Your task to perform on an android device: toggle notifications settings in the gmail app Image 0: 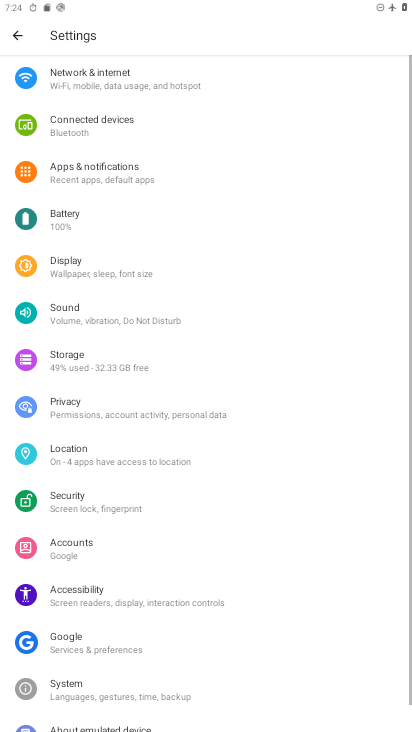
Step 0: press home button
Your task to perform on an android device: toggle notifications settings in the gmail app Image 1: 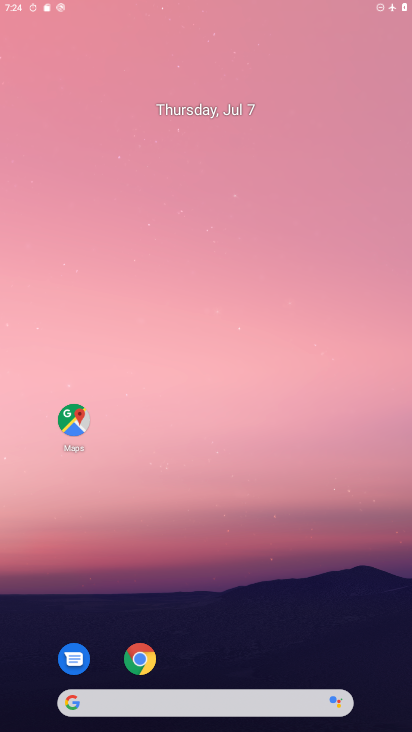
Step 1: drag from (365, 680) to (299, 293)
Your task to perform on an android device: toggle notifications settings in the gmail app Image 2: 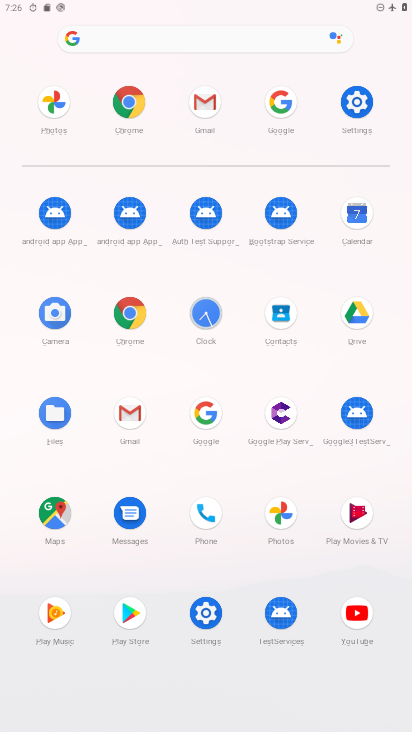
Step 2: click (128, 409)
Your task to perform on an android device: toggle notifications settings in the gmail app Image 3: 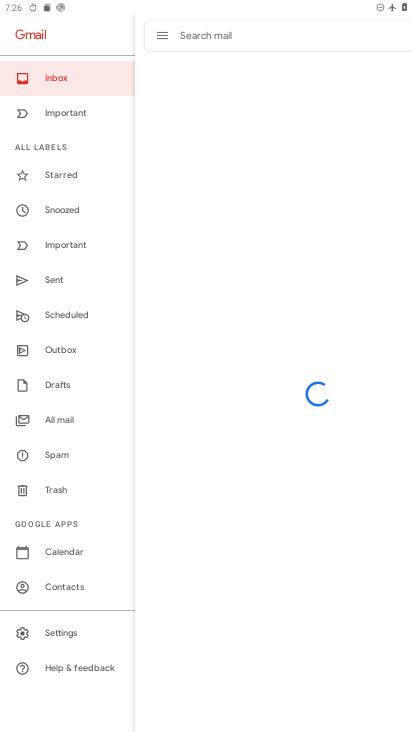
Step 3: click (56, 626)
Your task to perform on an android device: toggle notifications settings in the gmail app Image 4: 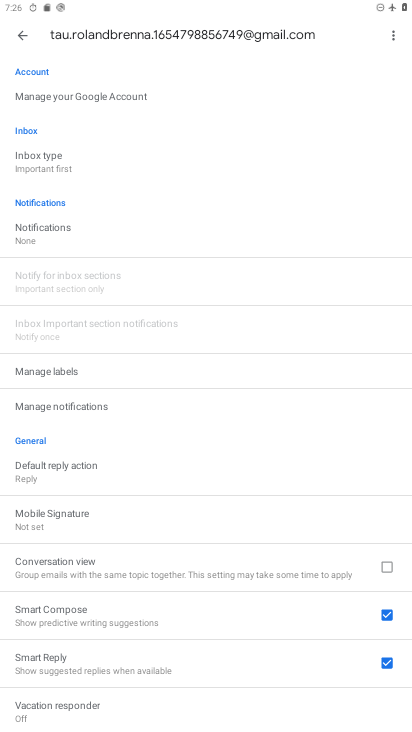
Step 4: click (44, 231)
Your task to perform on an android device: toggle notifications settings in the gmail app Image 5: 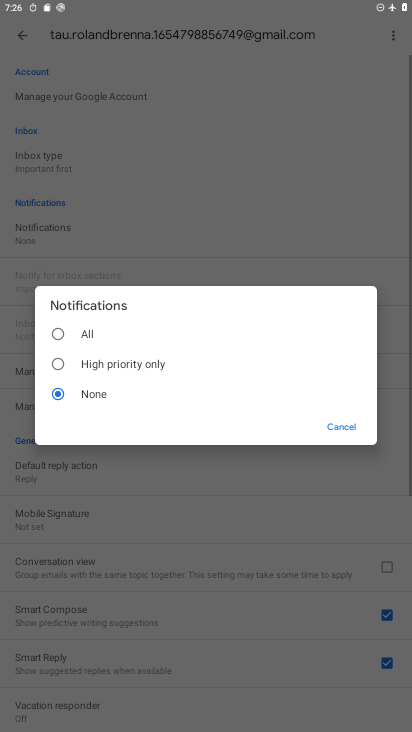
Step 5: click (82, 326)
Your task to perform on an android device: toggle notifications settings in the gmail app Image 6: 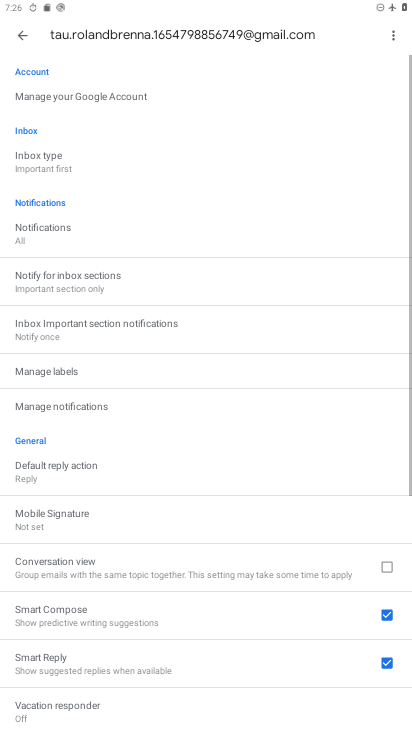
Step 6: task complete